Your task to perform on an android device: turn notification dots on Image 0: 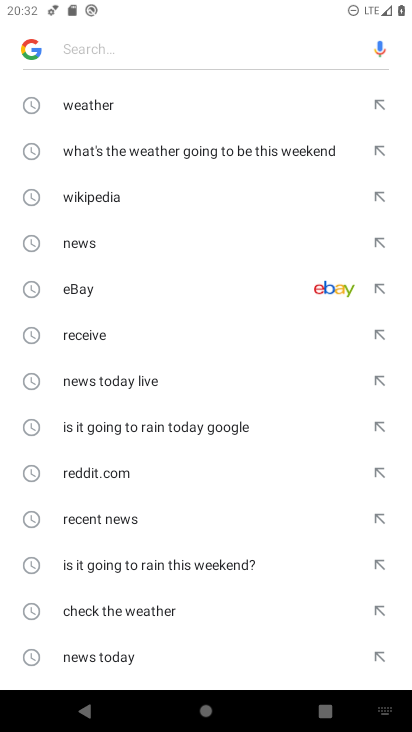
Step 0: press back button
Your task to perform on an android device: turn notification dots on Image 1: 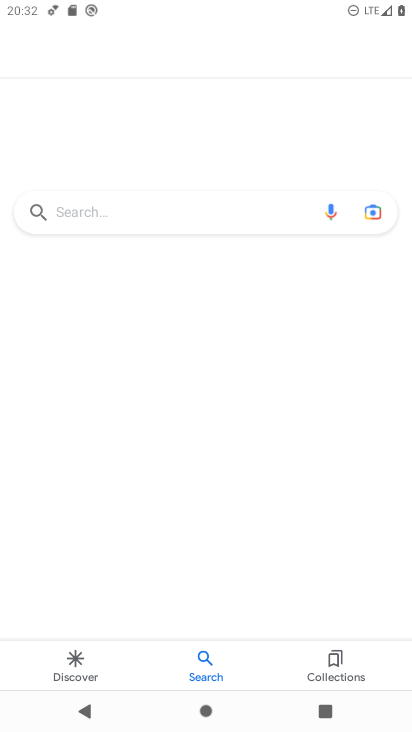
Step 1: press back button
Your task to perform on an android device: turn notification dots on Image 2: 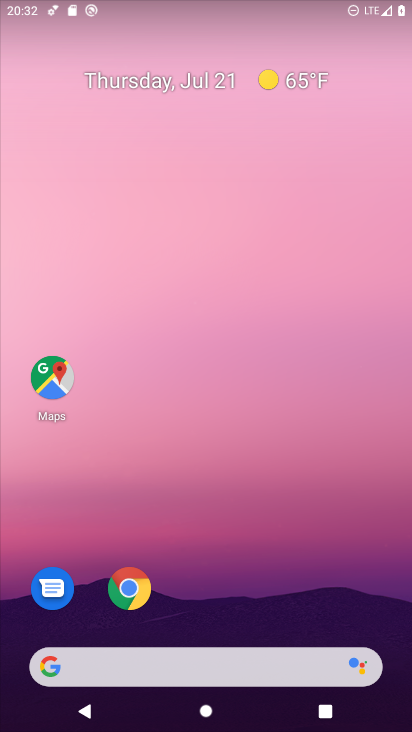
Step 2: drag from (246, 631) to (225, 9)
Your task to perform on an android device: turn notification dots on Image 3: 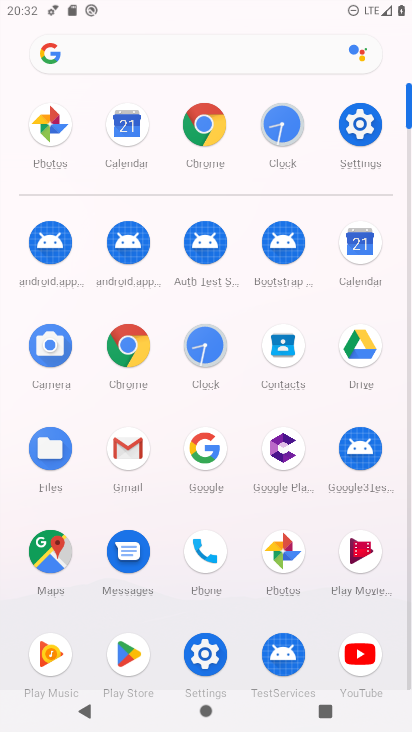
Step 3: click (200, 639)
Your task to perform on an android device: turn notification dots on Image 4: 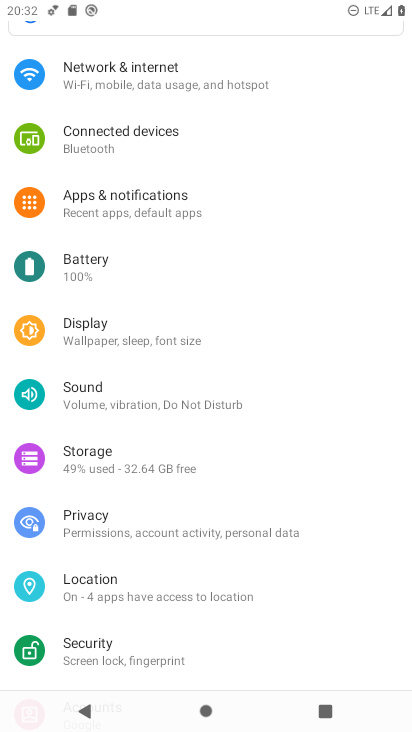
Step 4: click (147, 219)
Your task to perform on an android device: turn notification dots on Image 5: 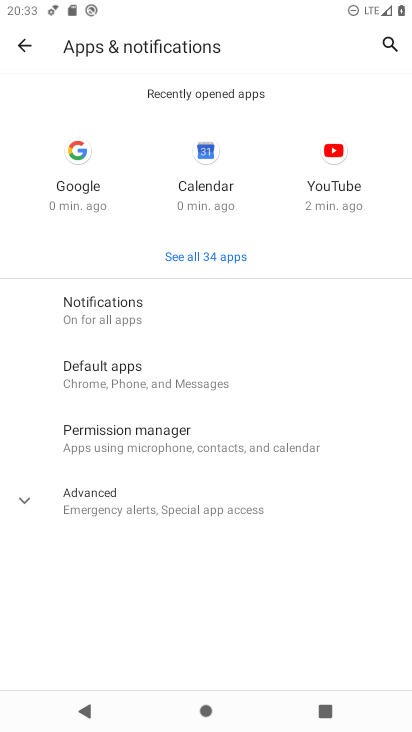
Step 5: click (106, 309)
Your task to perform on an android device: turn notification dots on Image 6: 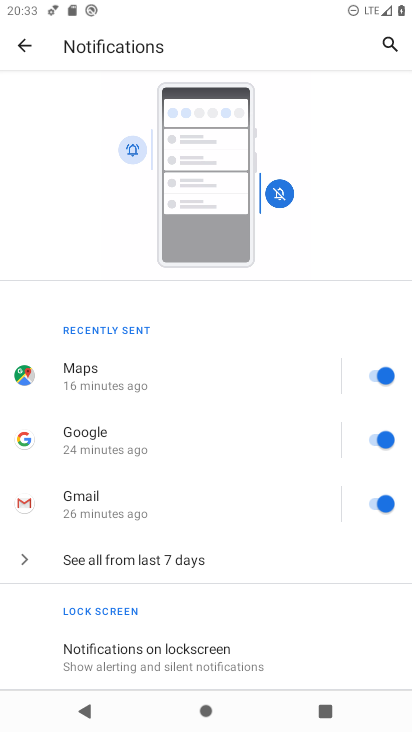
Step 6: drag from (169, 651) to (152, 205)
Your task to perform on an android device: turn notification dots on Image 7: 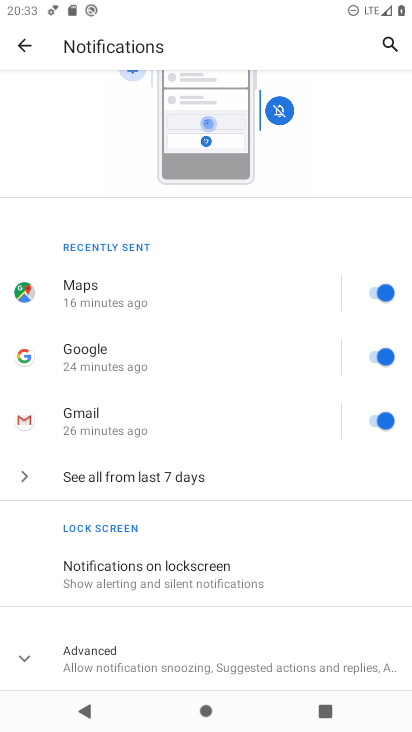
Step 7: click (209, 655)
Your task to perform on an android device: turn notification dots on Image 8: 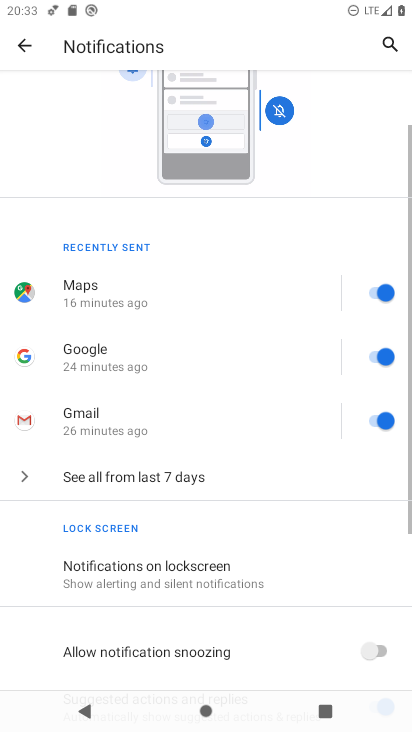
Step 8: task complete